Your task to perform on an android device: Toggle the flashlight Image 0: 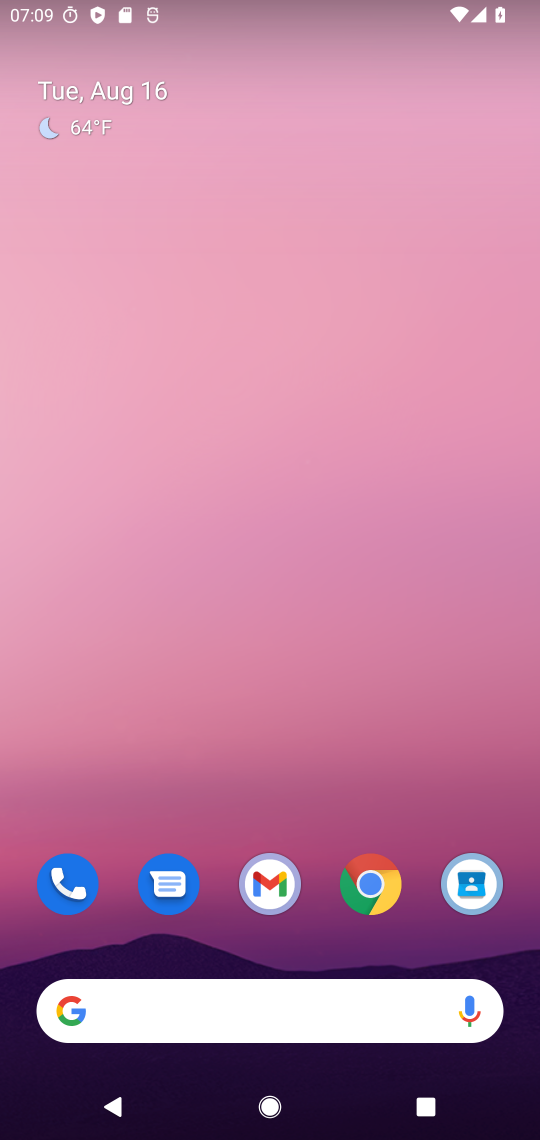
Step 0: press home button
Your task to perform on an android device: Toggle the flashlight Image 1: 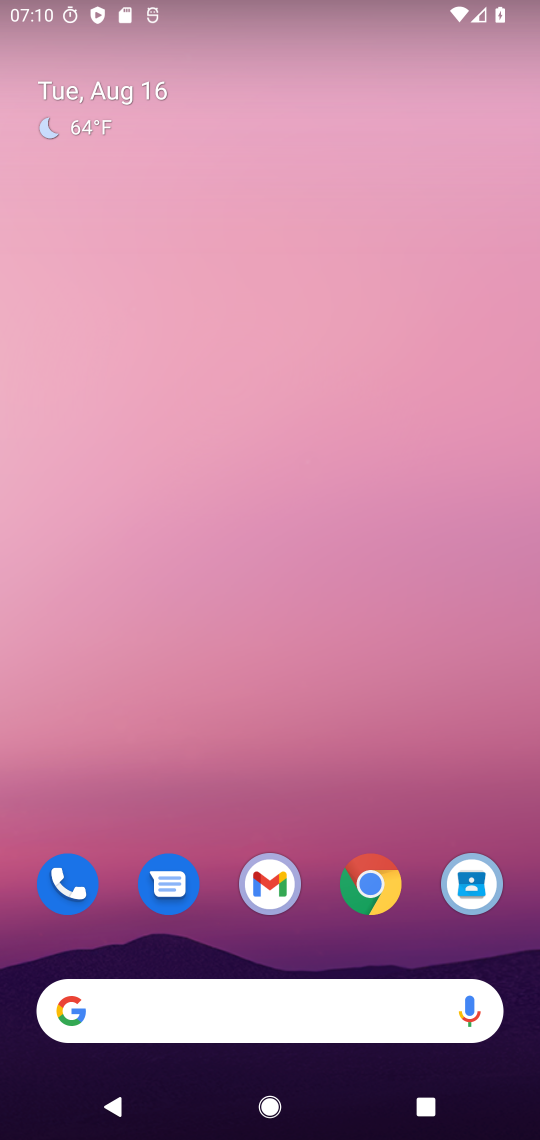
Step 1: press home button
Your task to perform on an android device: Toggle the flashlight Image 2: 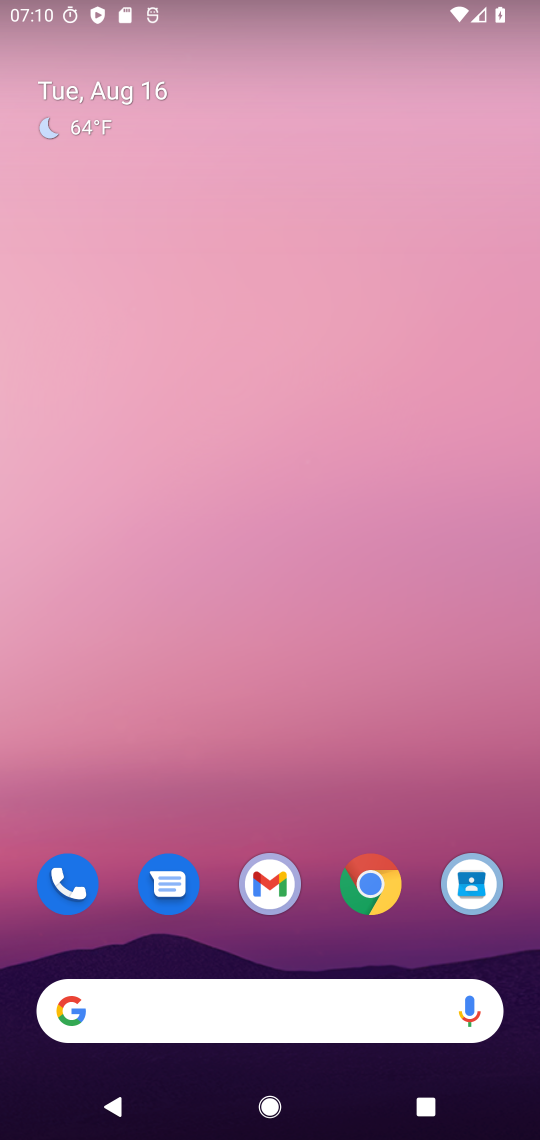
Step 2: drag from (228, 1) to (250, 600)
Your task to perform on an android device: Toggle the flashlight Image 3: 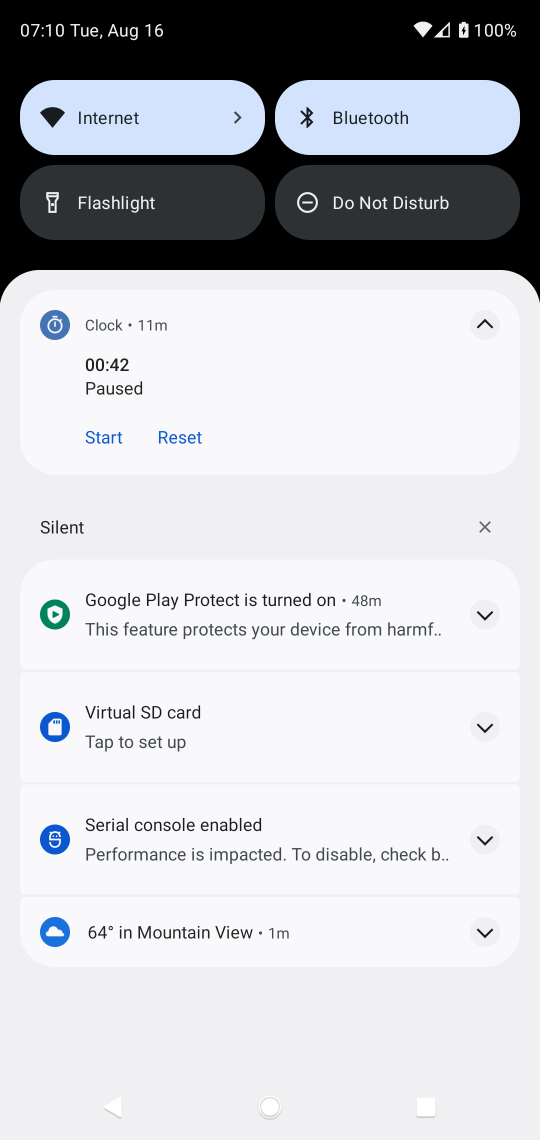
Step 3: click (146, 194)
Your task to perform on an android device: Toggle the flashlight Image 4: 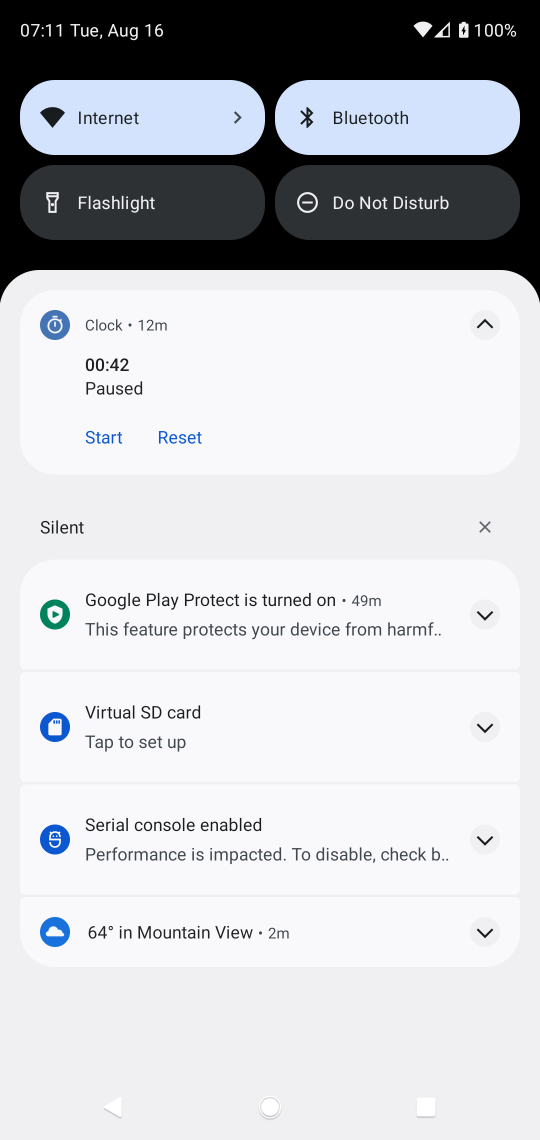
Step 4: task complete